Your task to perform on an android device: allow cookies in the chrome app Image 0: 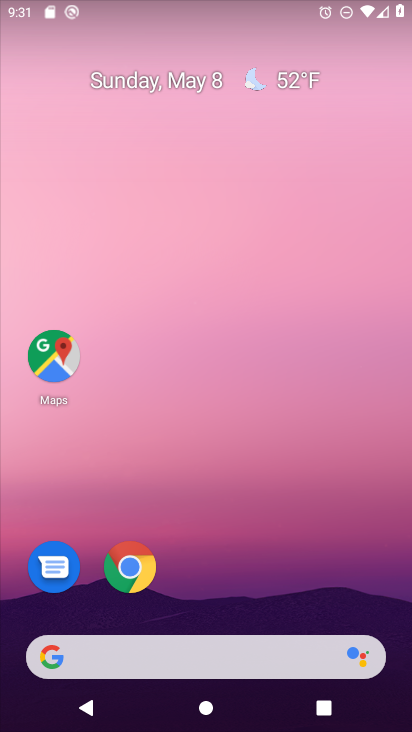
Step 0: drag from (264, 604) to (221, 149)
Your task to perform on an android device: allow cookies in the chrome app Image 1: 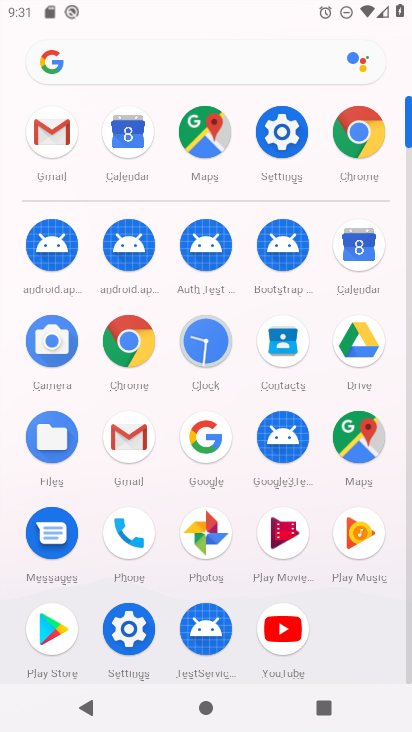
Step 1: click (355, 143)
Your task to perform on an android device: allow cookies in the chrome app Image 2: 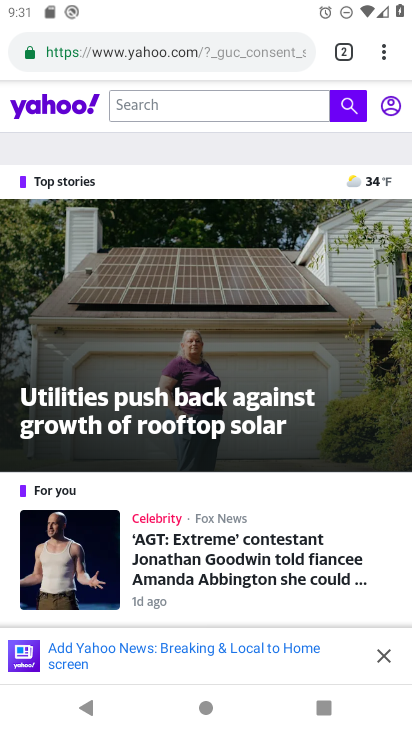
Step 2: drag from (383, 47) to (171, 612)
Your task to perform on an android device: allow cookies in the chrome app Image 3: 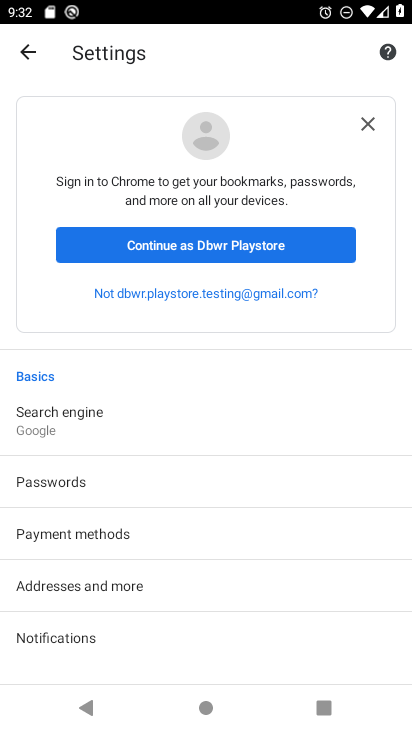
Step 3: drag from (110, 551) to (118, 228)
Your task to perform on an android device: allow cookies in the chrome app Image 4: 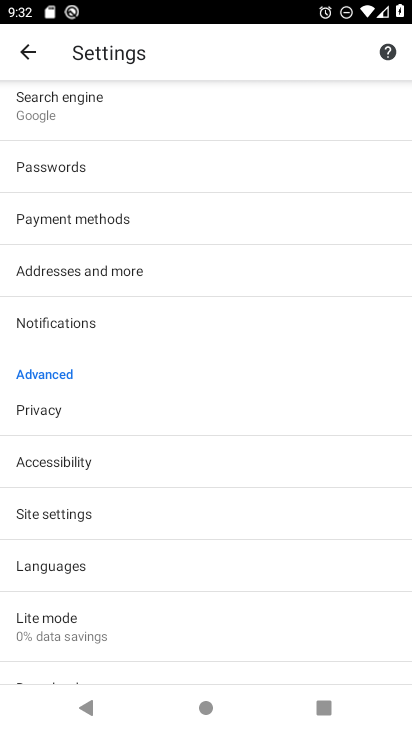
Step 4: click (112, 524)
Your task to perform on an android device: allow cookies in the chrome app Image 5: 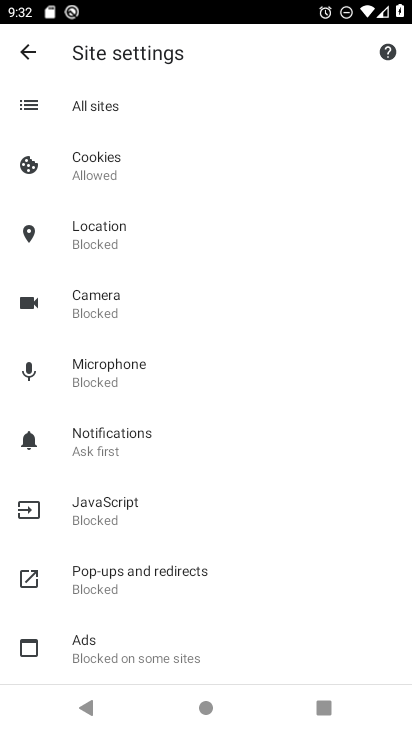
Step 5: click (76, 166)
Your task to perform on an android device: allow cookies in the chrome app Image 6: 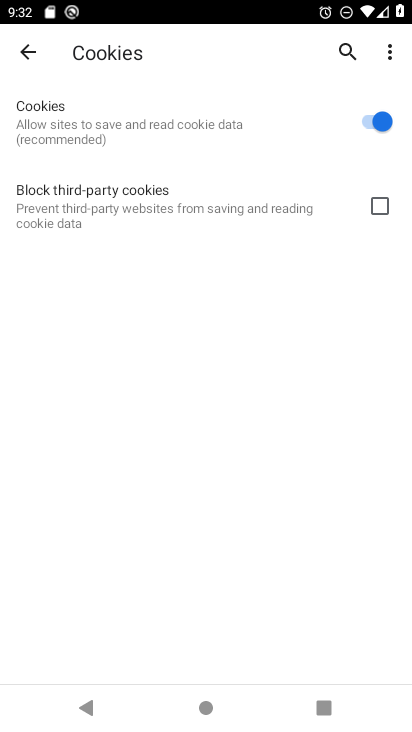
Step 6: task complete